Your task to perform on an android device: Open calendar and show me the second week of next month Image 0: 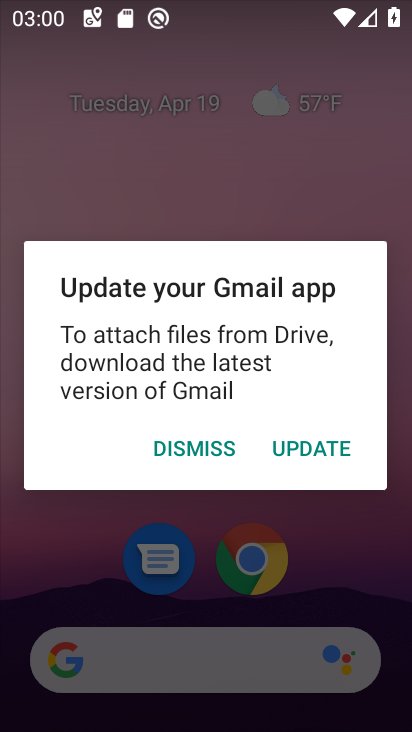
Step 0: press home button
Your task to perform on an android device: Open calendar and show me the second week of next month Image 1: 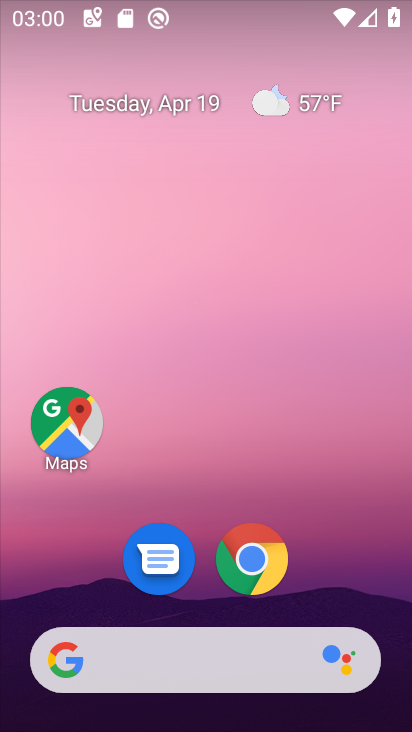
Step 1: drag from (208, 204) to (208, 87)
Your task to perform on an android device: Open calendar and show me the second week of next month Image 2: 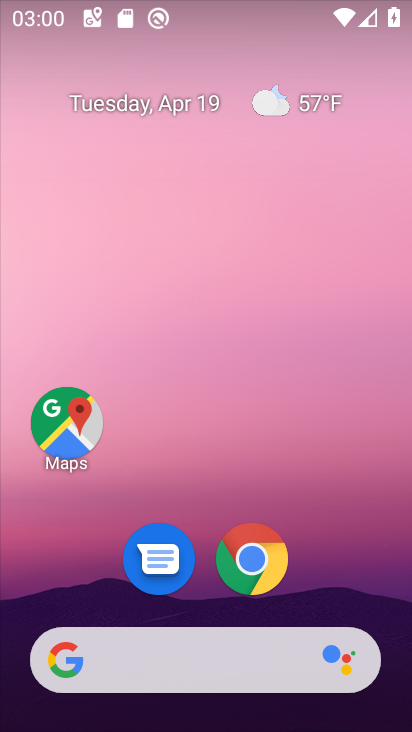
Step 2: drag from (209, 596) to (214, 120)
Your task to perform on an android device: Open calendar and show me the second week of next month Image 3: 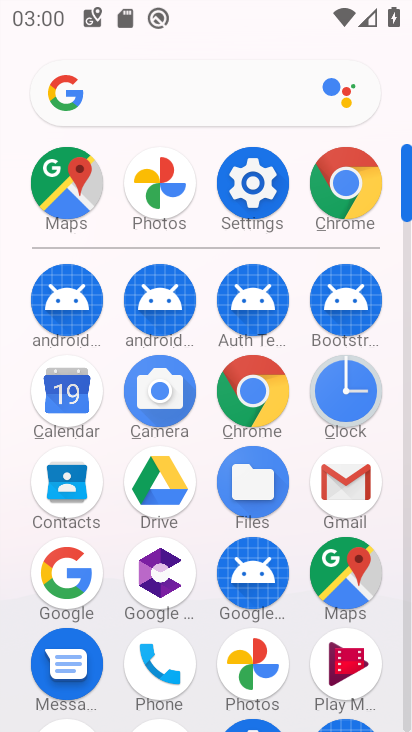
Step 3: click (71, 382)
Your task to perform on an android device: Open calendar and show me the second week of next month Image 4: 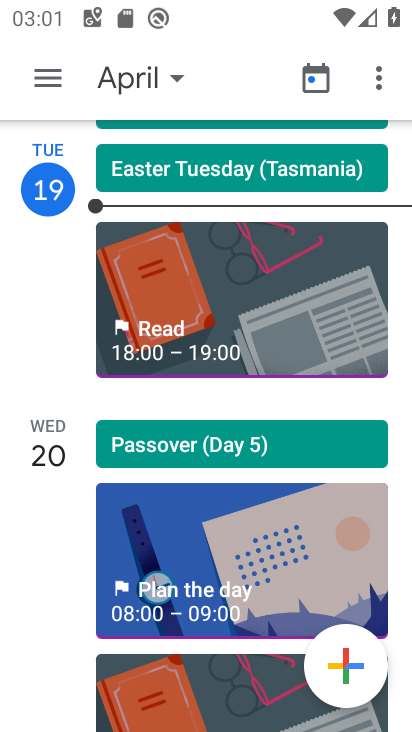
Step 4: click (46, 74)
Your task to perform on an android device: Open calendar and show me the second week of next month Image 5: 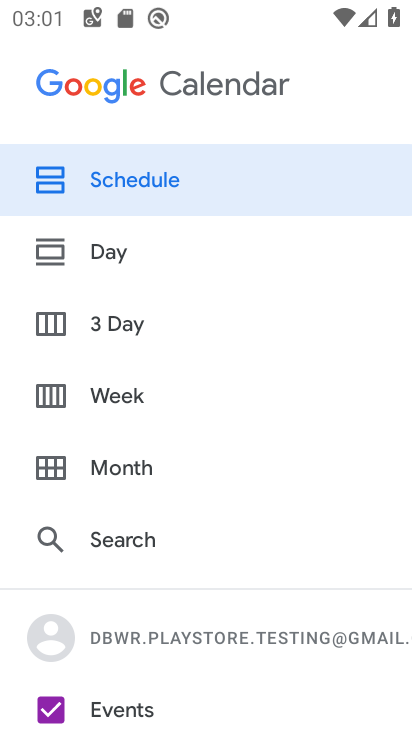
Step 5: click (123, 391)
Your task to perform on an android device: Open calendar and show me the second week of next month Image 6: 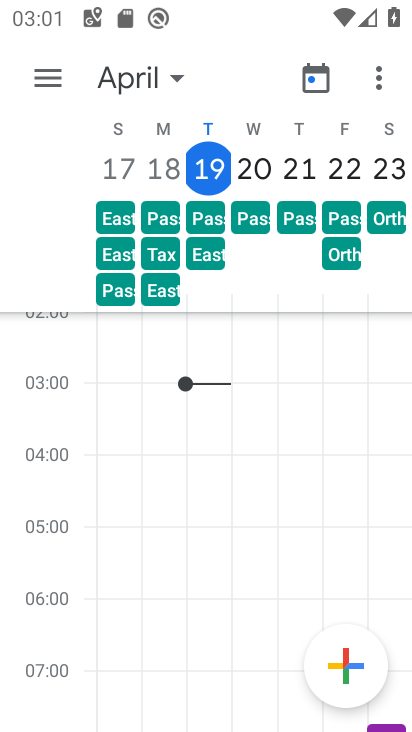
Step 6: drag from (255, 154) to (27, 154)
Your task to perform on an android device: Open calendar and show me the second week of next month Image 7: 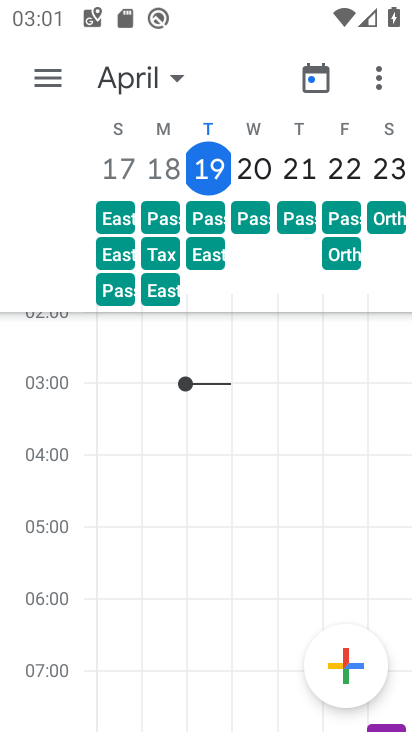
Step 7: drag from (319, 166) to (42, 165)
Your task to perform on an android device: Open calendar and show me the second week of next month Image 8: 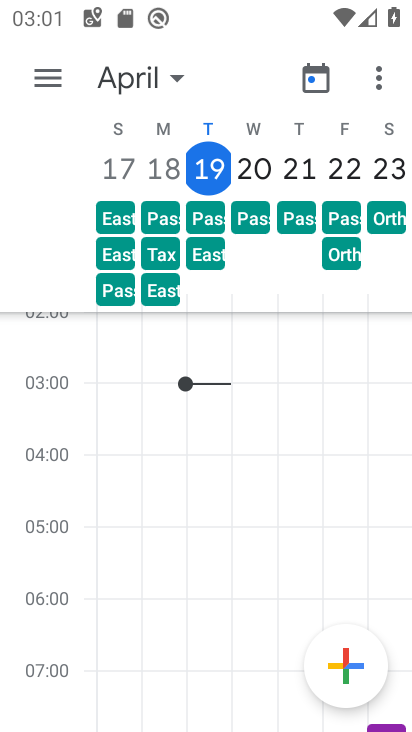
Step 8: drag from (389, 163) to (3, 189)
Your task to perform on an android device: Open calendar and show me the second week of next month Image 9: 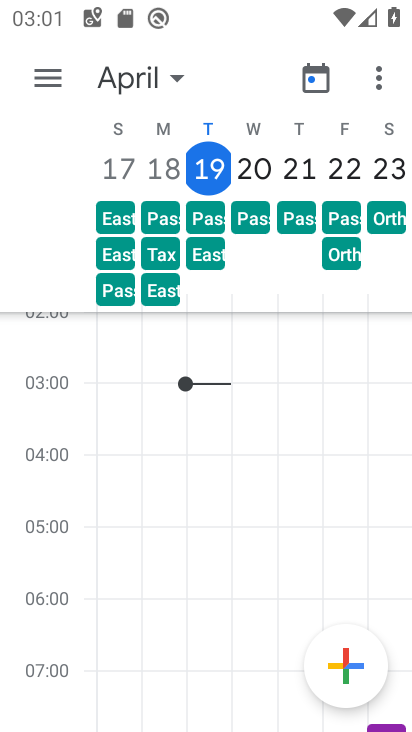
Step 9: drag from (232, 169) to (45, 173)
Your task to perform on an android device: Open calendar and show me the second week of next month Image 10: 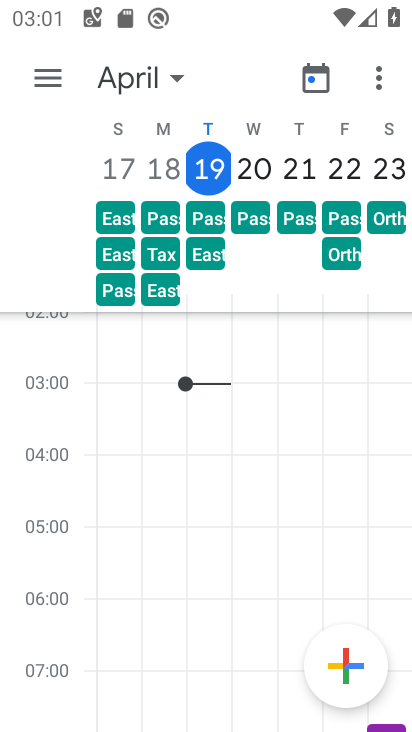
Step 10: click (244, 366)
Your task to perform on an android device: Open calendar and show me the second week of next month Image 11: 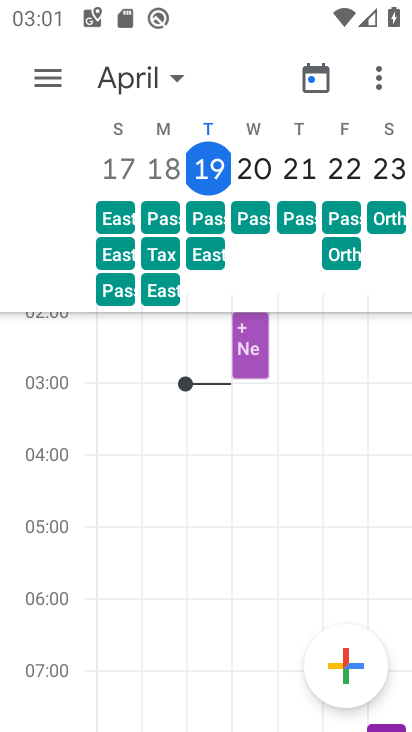
Step 11: drag from (362, 154) to (0, 183)
Your task to perform on an android device: Open calendar and show me the second week of next month Image 12: 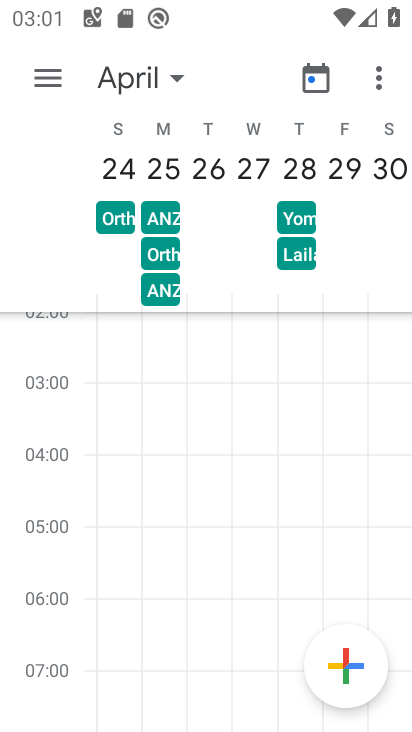
Step 12: drag from (395, 167) to (92, 185)
Your task to perform on an android device: Open calendar and show me the second week of next month Image 13: 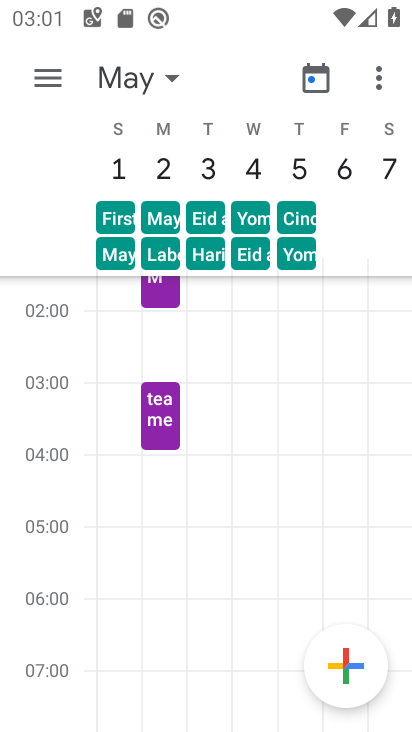
Step 13: drag from (382, 166) to (75, 177)
Your task to perform on an android device: Open calendar and show me the second week of next month Image 14: 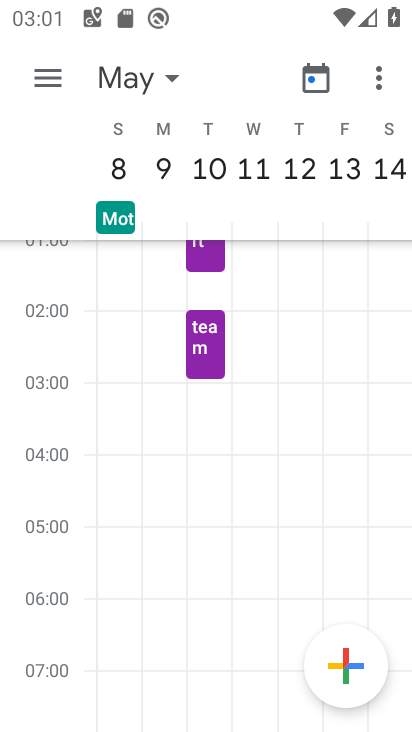
Step 14: click (121, 170)
Your task to perform on an android device: Open calendar and show me the second week of next month Image 15: 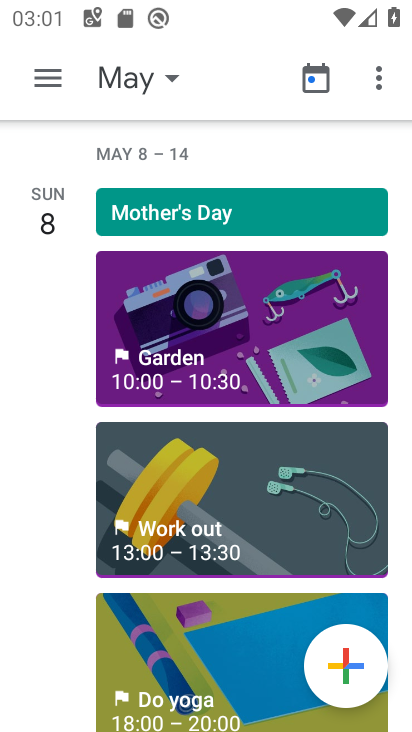
Step 15: drag from (39, 431) to (38, 152)
Your task to perform on an android device: Open calendar and show me the second week of next month Image 16: 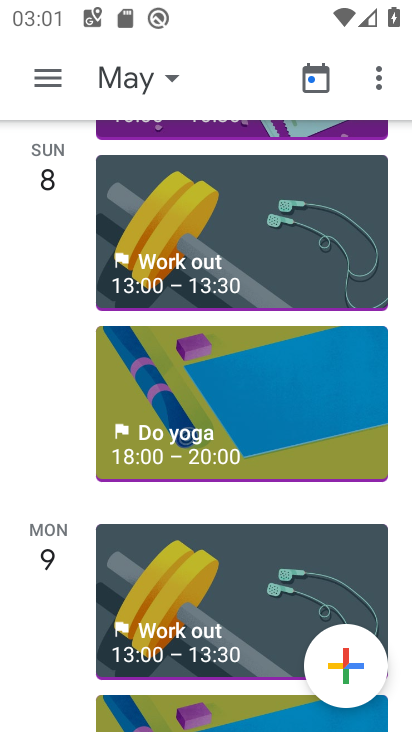
Step 16: drag from (34, 434) to (43, 192)
Your task to perform on an android device: Open calendar and show me the second week of next month Image 17: 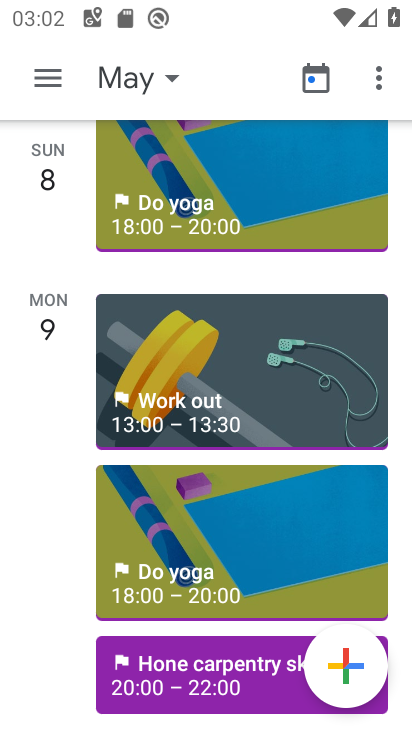
Step 17: drag from (55, 385) to (56, 135)
Your task to perform on an android device: Open calendar and show me the second week of next month Image 18: 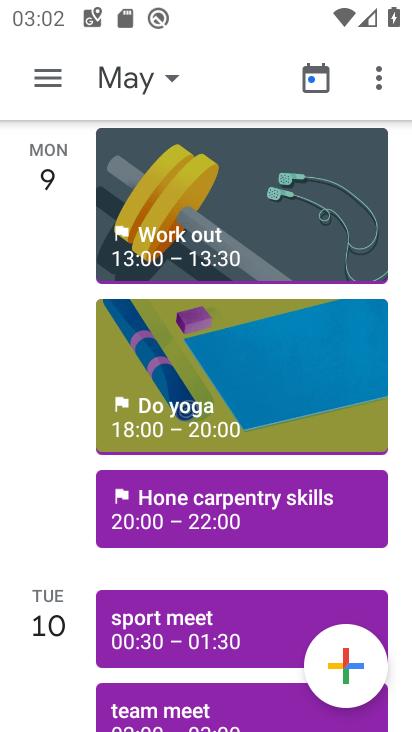
Step 18: drag from (68, 606) to (65, 152)
Your task to perform on an android device: Open calendar and show me the second week of next month Image 19: 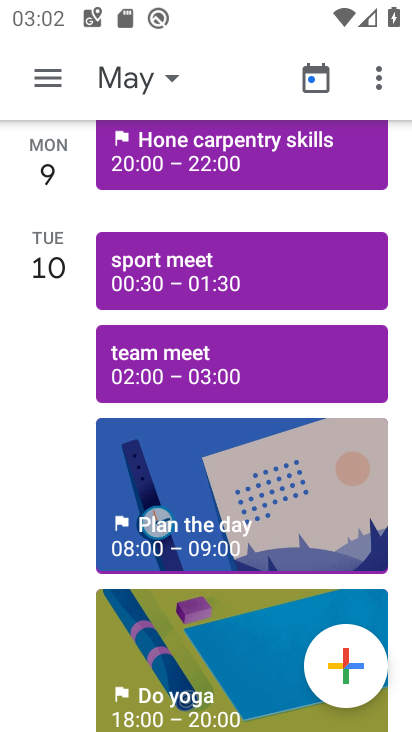
Step 19: drag from (66, 594) to (73, 135)
Your task to perform on an android device: Open calendar and show me the second week of next month Image 20: 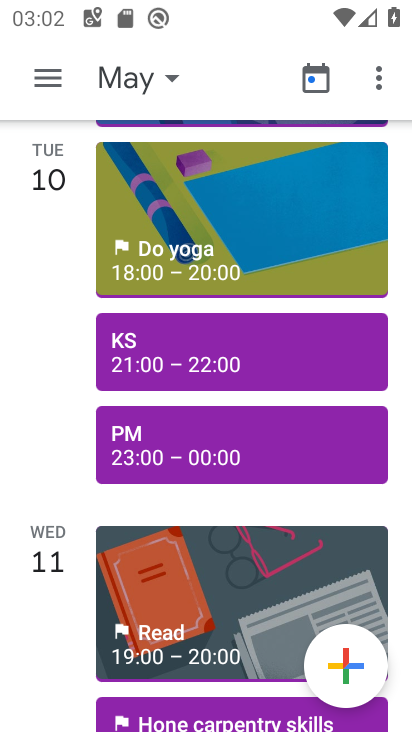
Step 20: click (80, 495)
Your task to perform on an android device: Open calendar and show me the second week of next month Image 21: 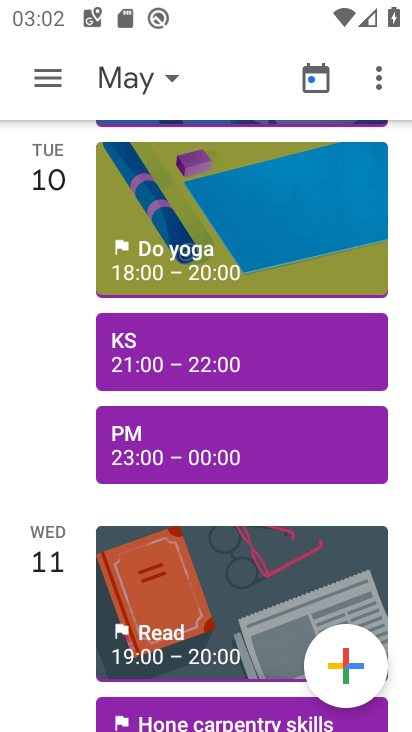
Step 21: task complete